Your task to perform on an android device: Search for the best 100% cotton t-shirts Image 0: 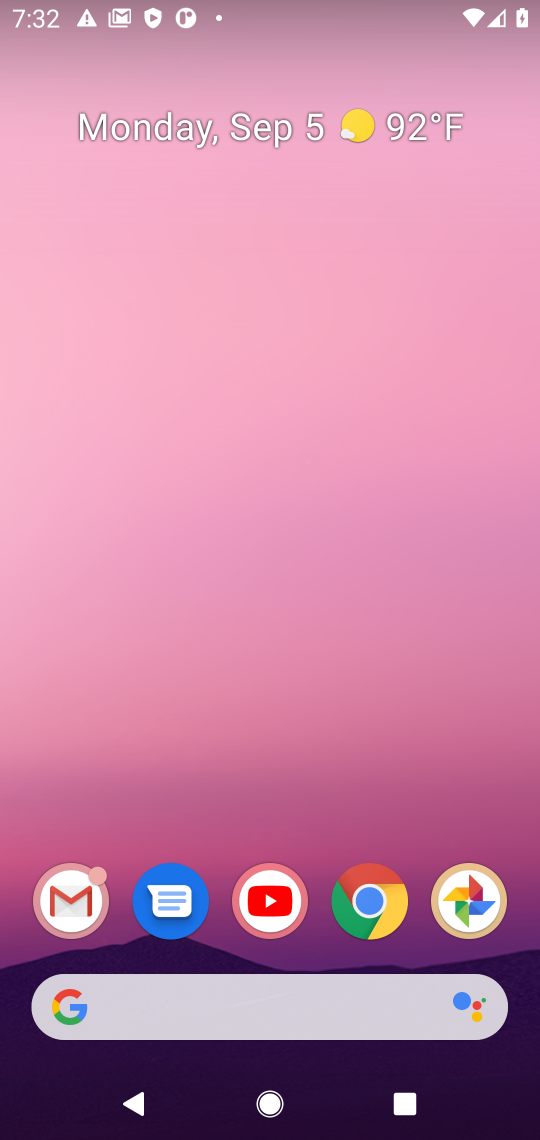
Step 0: click (377, 879)
Your task to perform on an android device: Search for the best 100% cotton t-shirts Image 1: 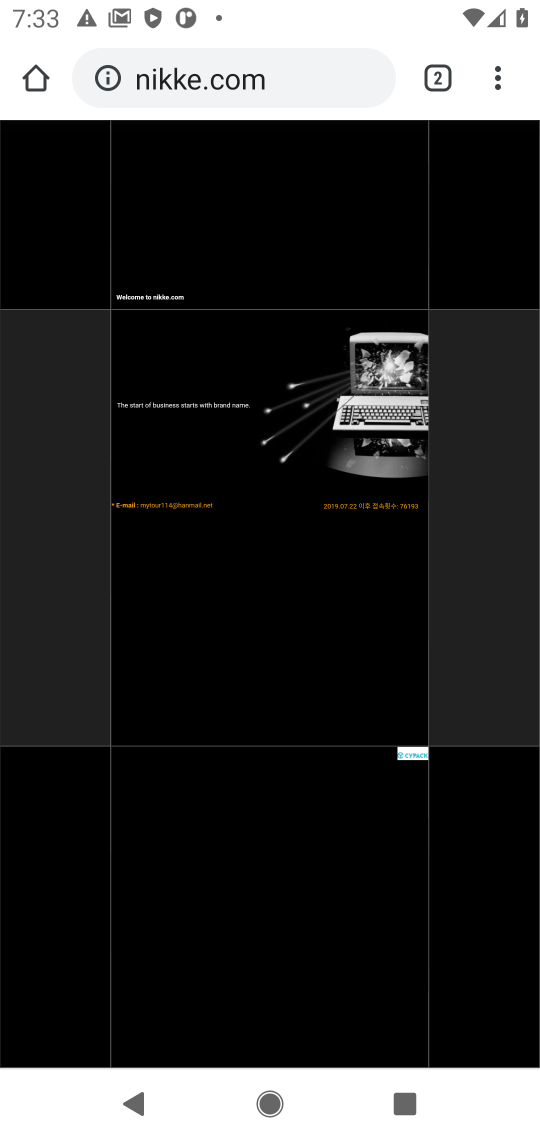
Step 1: click (333, 99)
Your task to perform on an android device: Search for the best 100% cotton t-shirts Image 2: 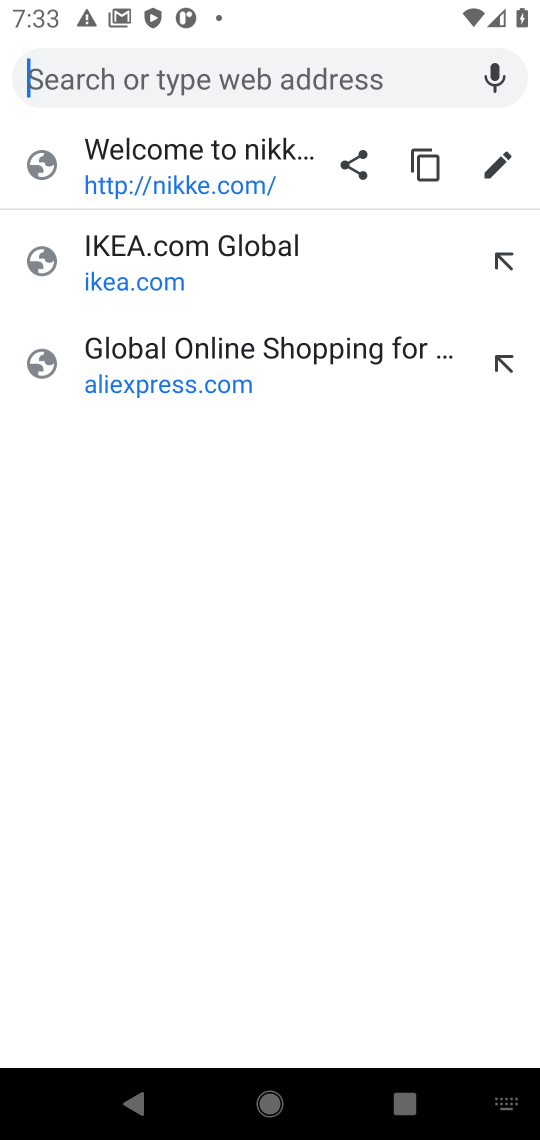
Step 2: type "cotton t shirt"
Your task to perform on an android device: Search for the best 100% cotton t-shirts Image 3: 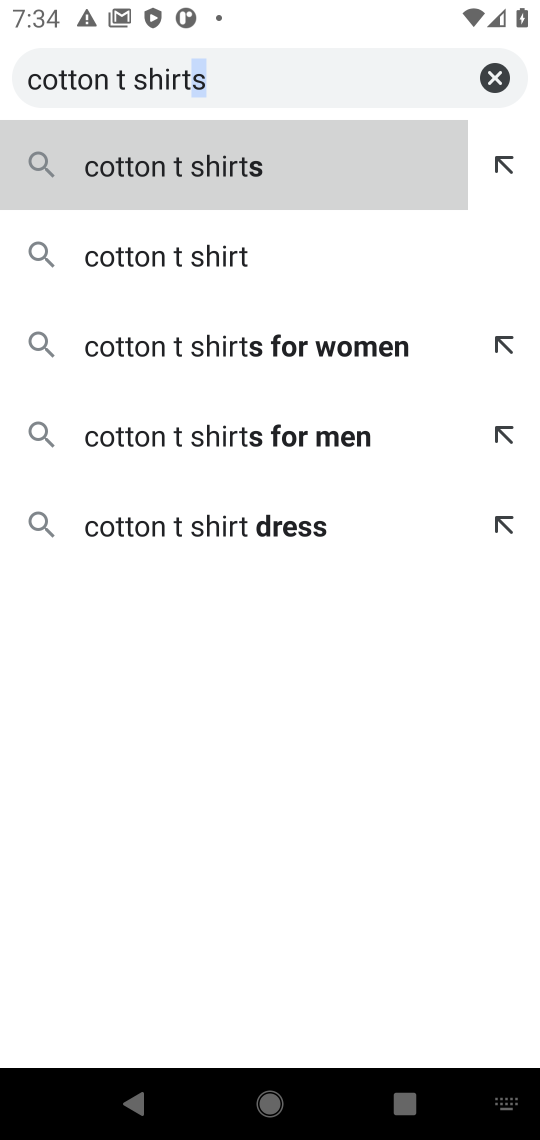
Step 3: click (240, 251)
Your task to perform on an android device: Search for the best 100% cotton t-shirts Image 4: 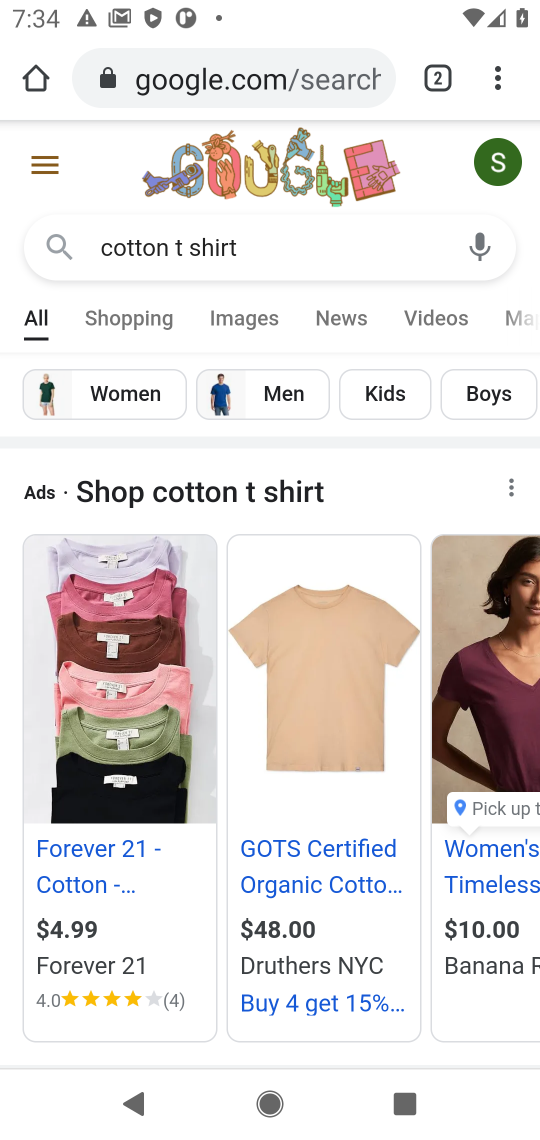
Step 4: task complete